Your task to perform on an android device: Open notification settings Image 0: 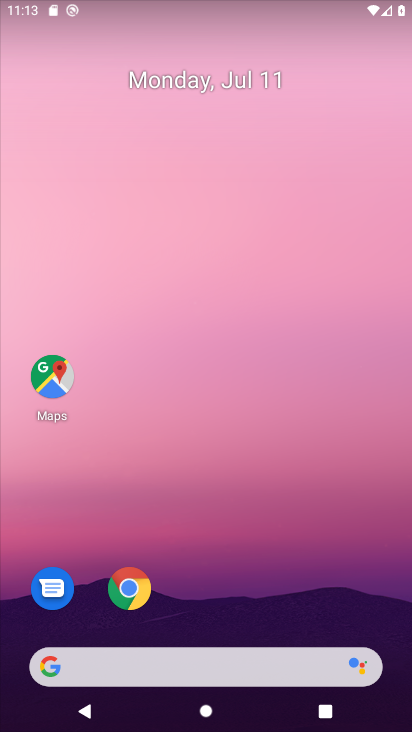
Step 0: drag from (256, 402) to (234, 65)
Your task to perform on an android device: Open notification settings Image 1: 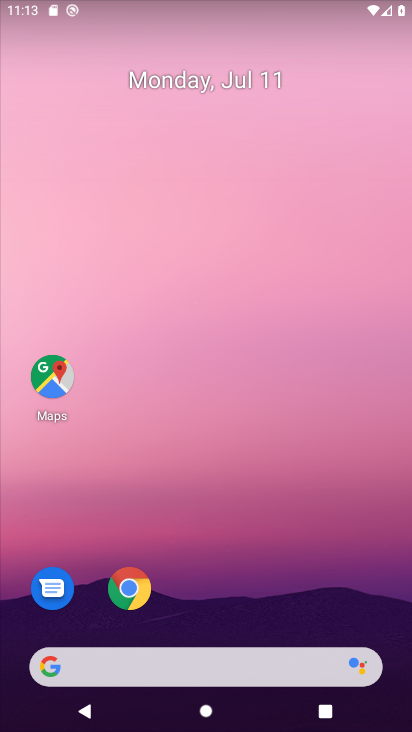
Step 1: drag from (266, 557) to (114, 22)
Your task to perform on an android device: Open notification settings Image 2: 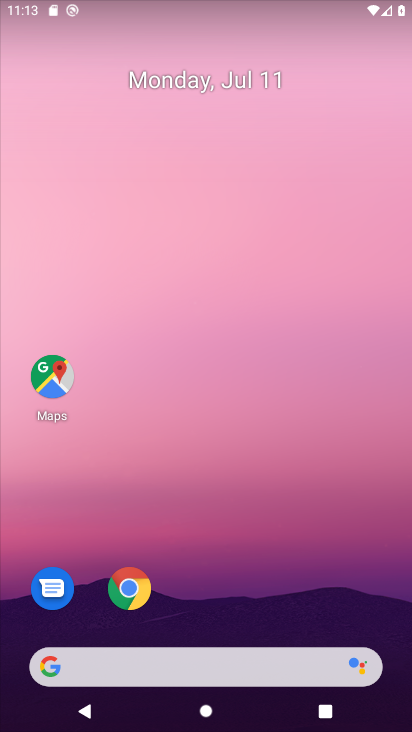
Step 2: drag from (277, 523) to (246, 200)
Your task to perform on an android device: Open notification settings Image 3: 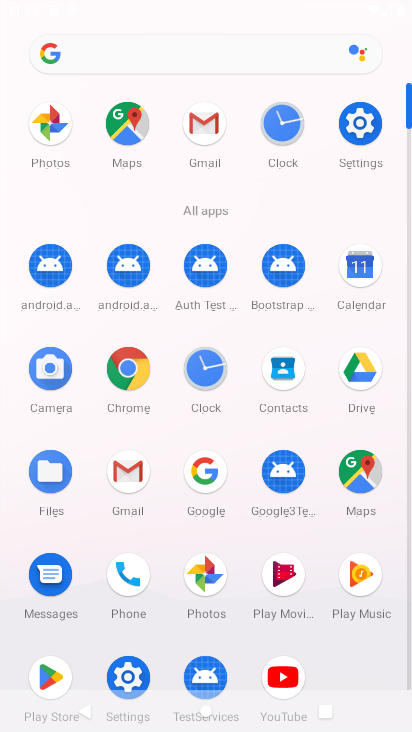
Step 3: click (218, 60)
Your task to perform on an android device: Open notification settings Image 4: 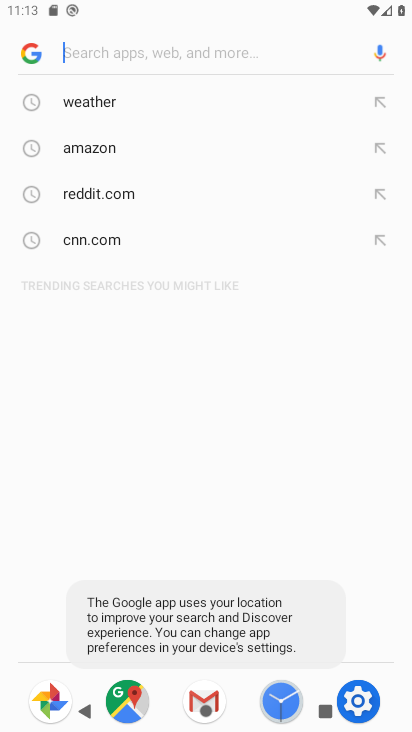
Step 4: press back button
Your task to perform on an android device: Open notification settings Image 5: 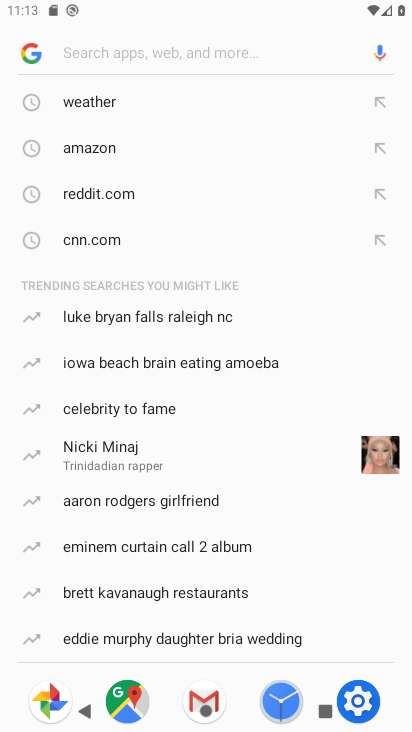
Step 5: press back button
Your task to perform on an android device: Open notification settings Image 6: 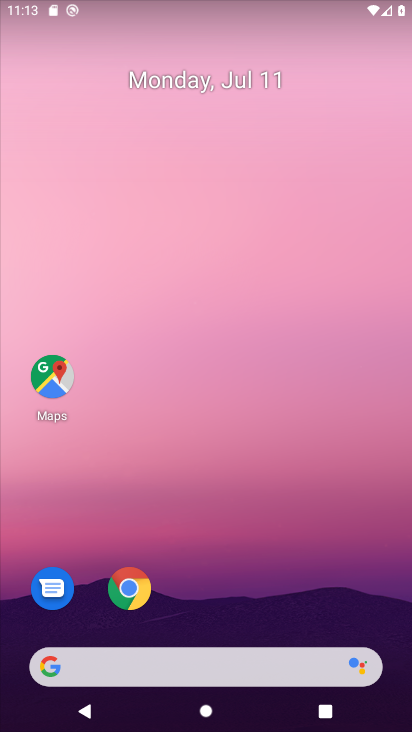
Step 6: press home button
Your task to perform on an android device: Open notification settings Image 7: 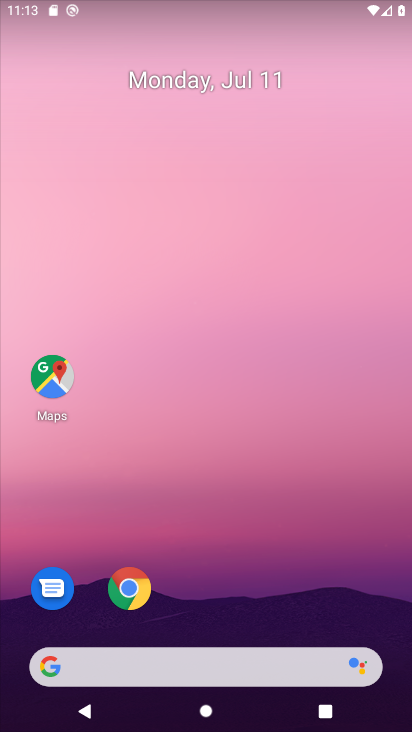
Step 7: press home button
Your task to perform on an android device: Open notification settings Image 8: 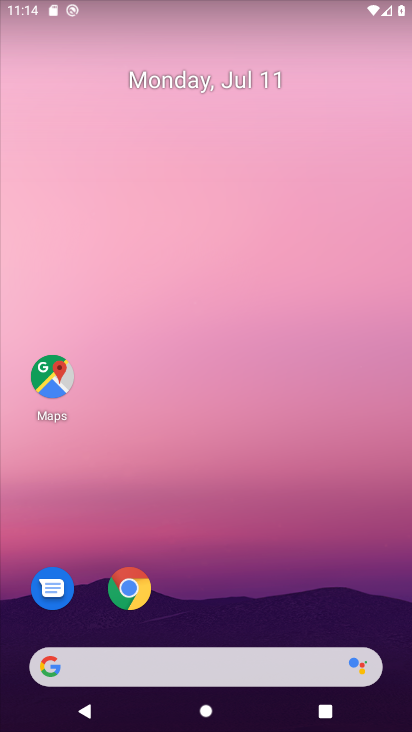
Step 8: click (261, 212)
Your task to perform on an android device: Open notification settings Image 9: 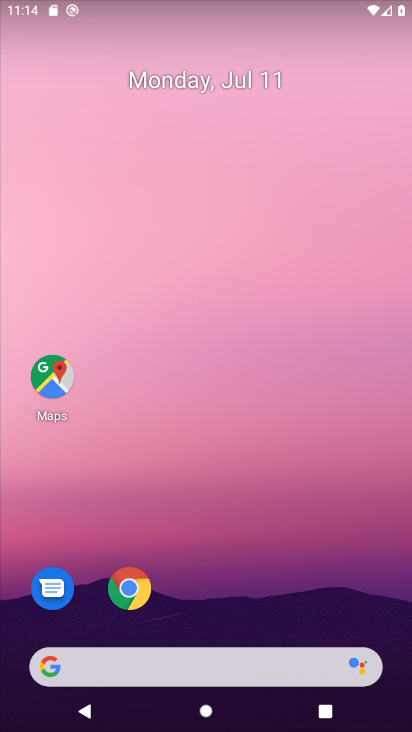
Step 9: drag from (227, 431) to (173, 2)
Your task to perform on an android device: Open notification settings Image 10: 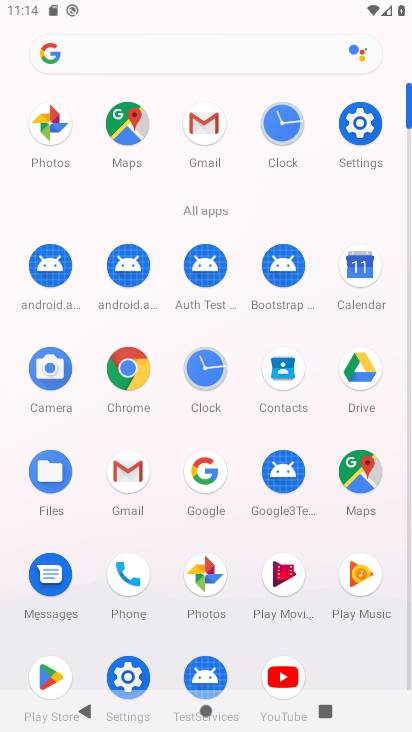
Step 10: drag from (220, 420) to (216, 145)
Your task to perform on an android device: Open notification settings Image 11: 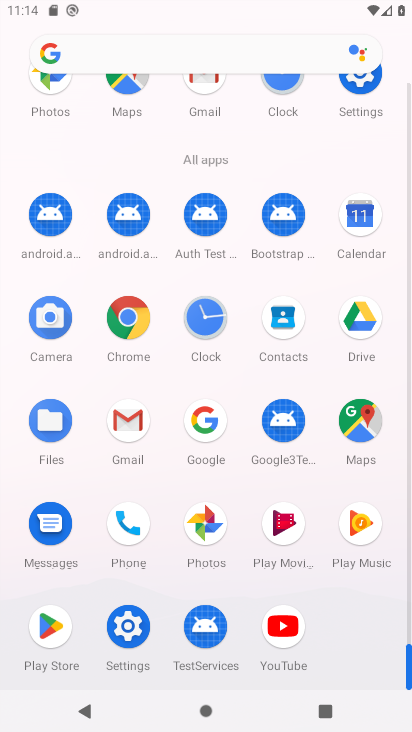
Step 11: click (362, 84)
Your task to perform on an android device: Open notification settings Image 12: 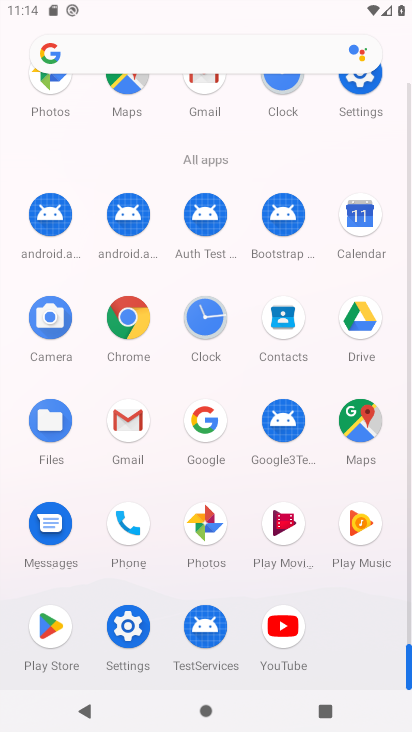
Step 12: click (364, 82)
Your task to perform on an android device: Open notification settings Image 13: 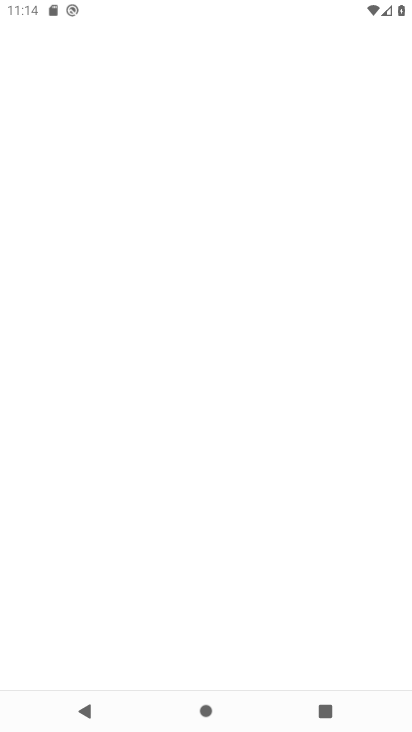
Step 13: click (367, 86)
Your task to perform on an android device: Open notification settings Image 14: 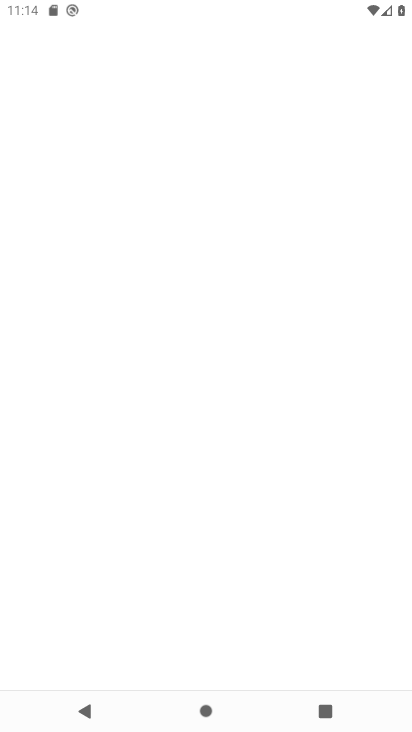
Step 14: click (368, 87)
Your task to perform on an android device: Open notification settings Image 15: 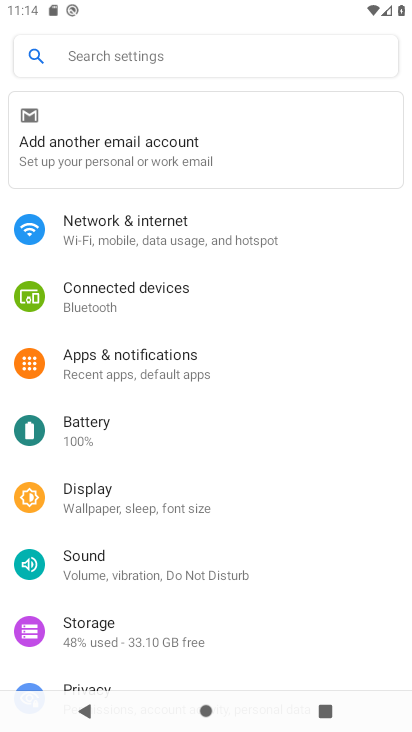
Step 15: click (139, 361)
Your task to perform on an android device: Open notification settings Image 16: 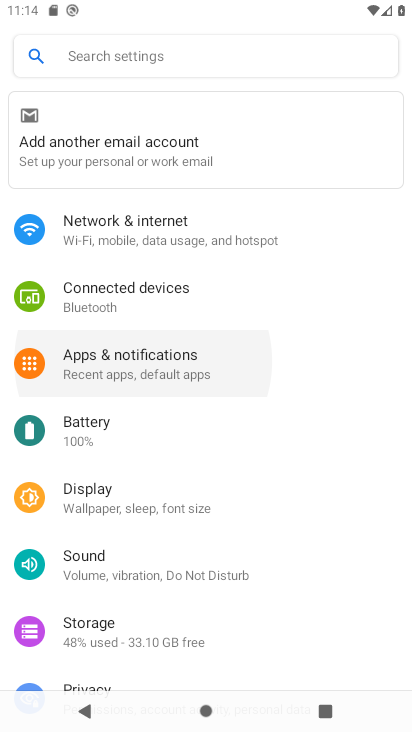
Step 16: click (139, 361)
Your task to perform on an android device: Open notification settings Image 17: 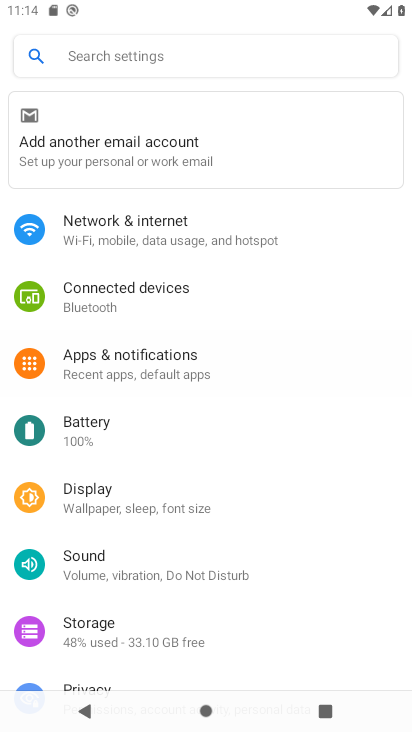
Step 17: click (139, 361)
Your task to perform on an android device: Open notification settings Image 18: 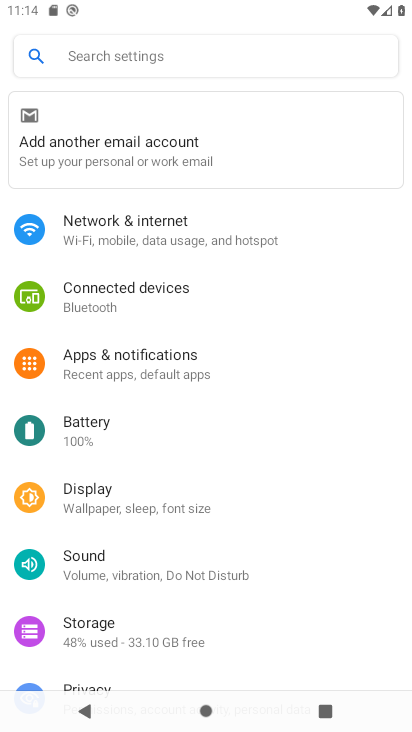
Step 18: click (140, 361)
Your task to perform on an android device: Open notification settings Image 19: 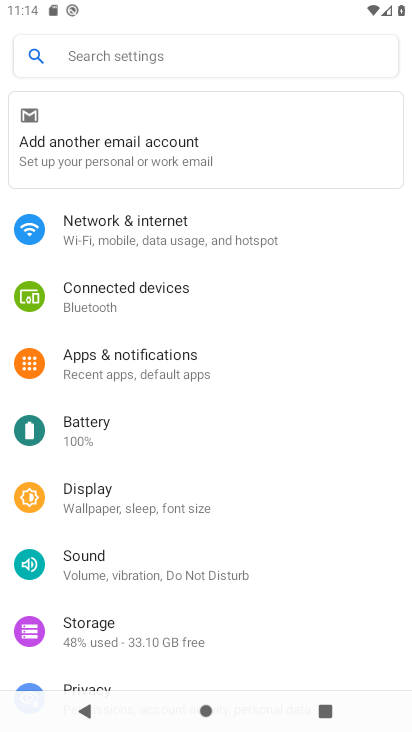
Step 19: click (118, 352)
Your task to perform on an android device: Open notification settings Image 20: 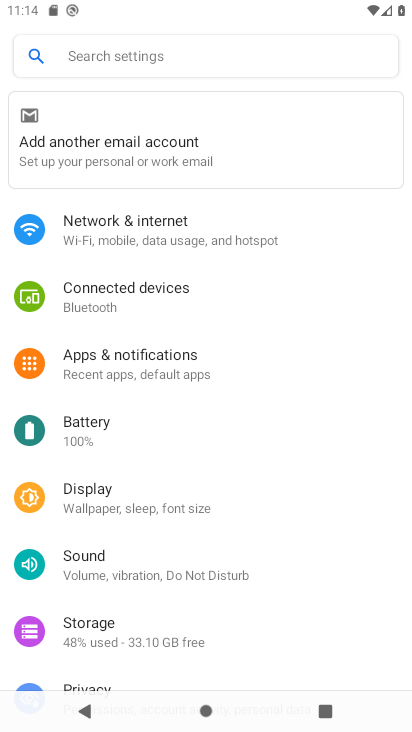
Step 20: click (118, 352)
Your task to perform on an android device: Open notification settings Image 21: 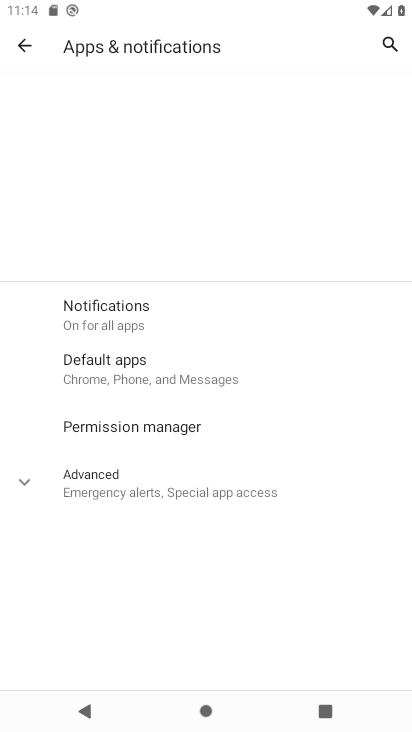
Step 21: click (119, 353)
Your task to perform on an android device: Open notification settings Image 22: 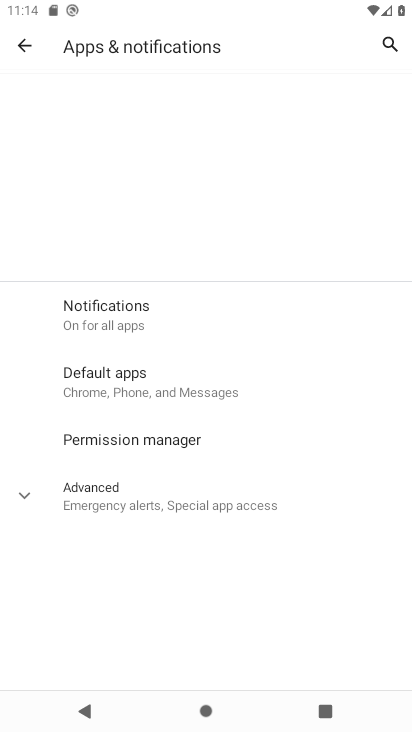
Step 22: click (124, 355)
Your task to perform on an android device: Open notification settings Image 23: 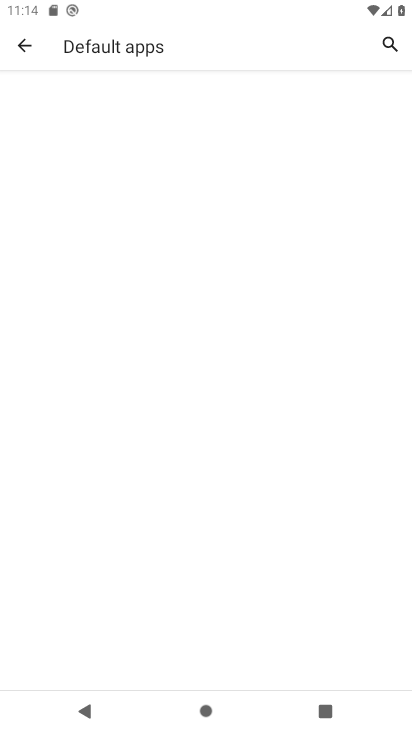
Step 23: click (25, 39)
Your task to perform on an android device: Open notification settings Image 24: 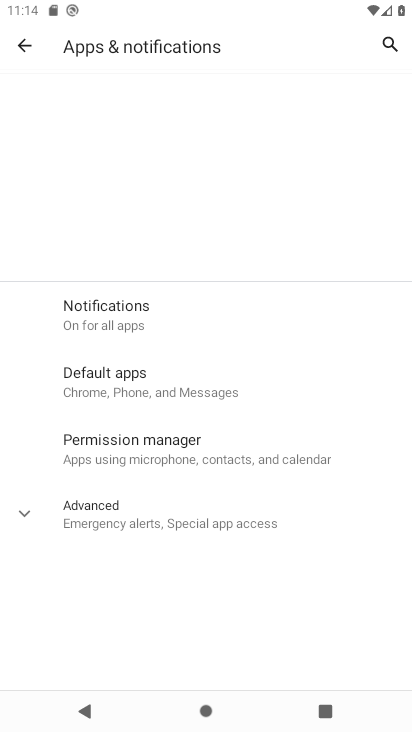
Step 24: click (114, 309)
Your task to perform on an android device: Open notification settings Image 25: 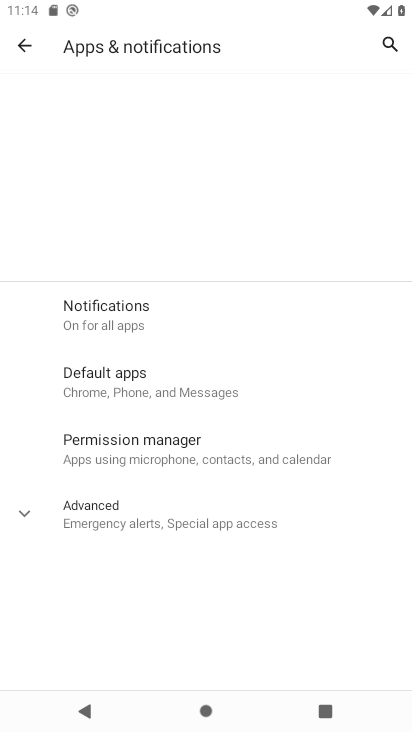
Step 25: click (115, 309)
Your task to perform on an android device: Open notification settings Image 26: 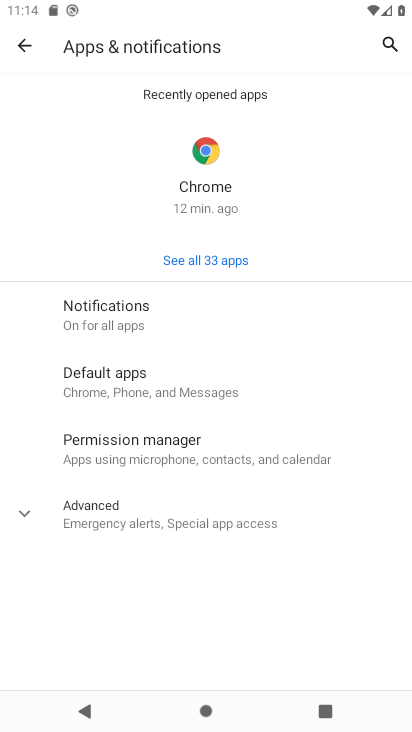
Step 26: task complete